Your task to perform on an android device: set default search engine in the chrome app Image 0: 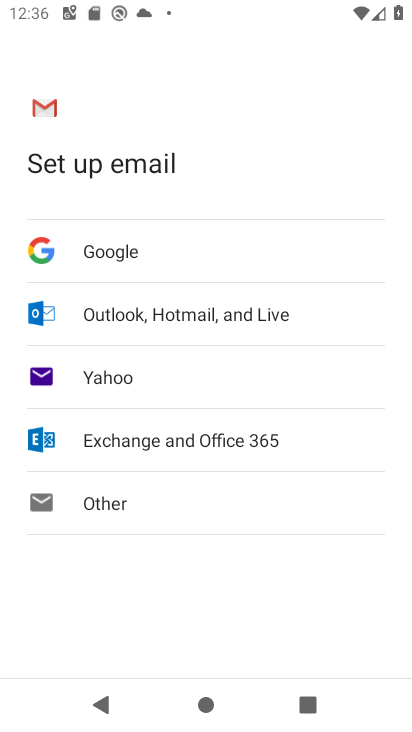
Step 0: press home button
Your task to perform on an android device: set default search engine in the chrome app Image 1: 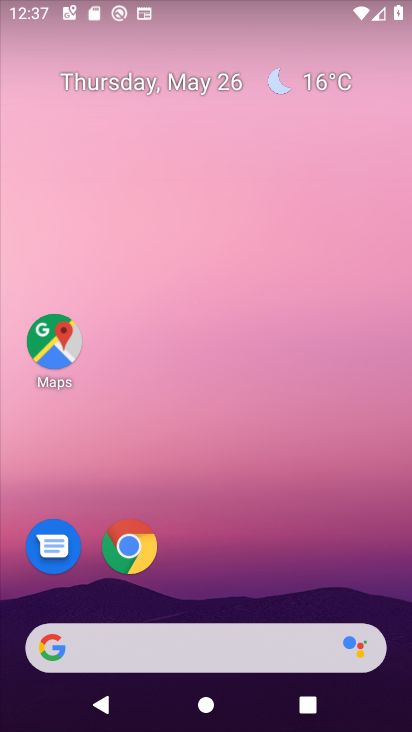
Step 1: click (132, 543)
Your task to perform on an android device: set default search engine in the chrome app Image 2: 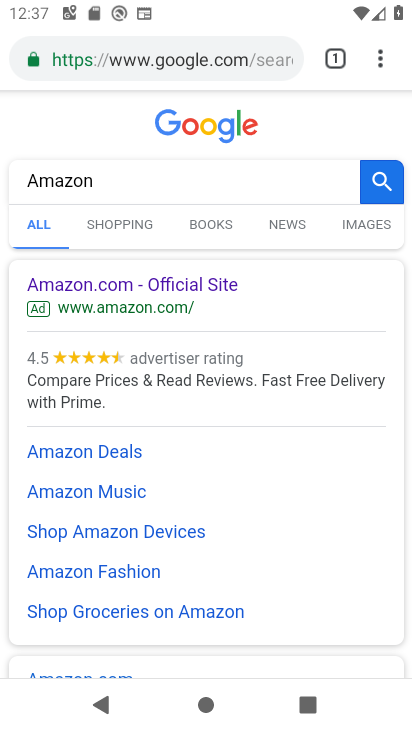
Step 2: click (383, 53)
Your task to perform on an android device: set default search engine in the chrome app Image 3: 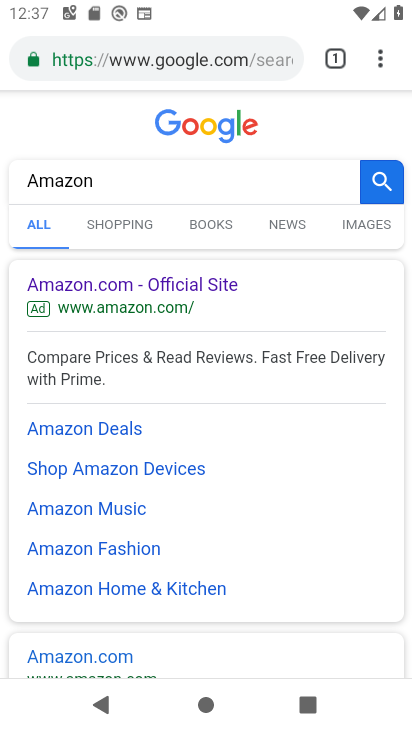
Step 3: click (375, 60)
Your task to perform on an android device: set default search engine in the chrome app Image 4: 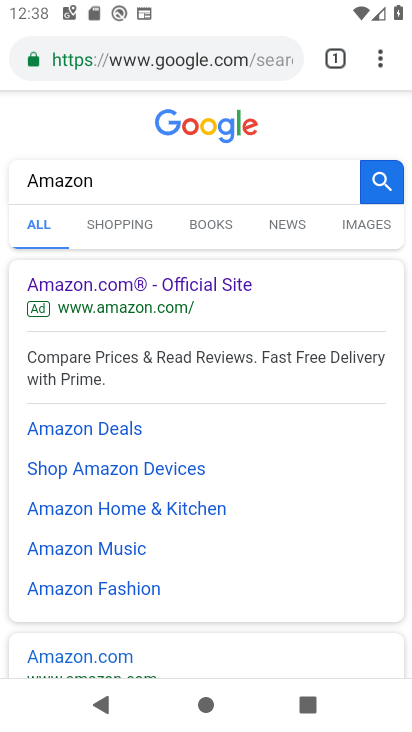
Step 4: click (377, 50)
Your task to perform on an android device: set default search engine in the chrome app Image 5: 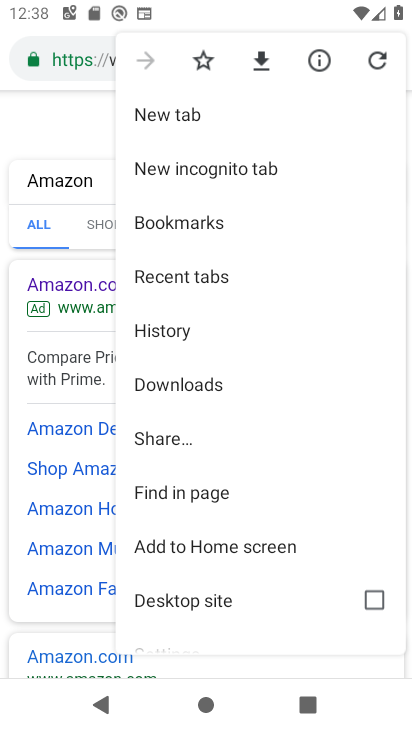
Step 5: drag from (217, 584) to (318, 254)
Your task to perform on an android device: set default search engine in the chrome app Image 6: 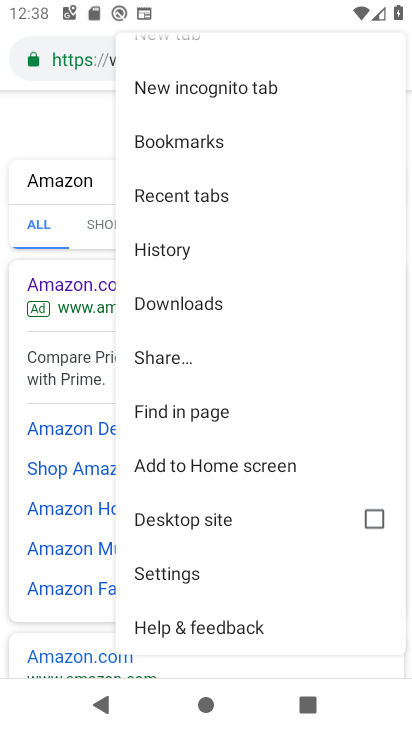
Step 6: click (164, 584)
Your task to perform on an android device: set default search engine in the chrome app Image 7: 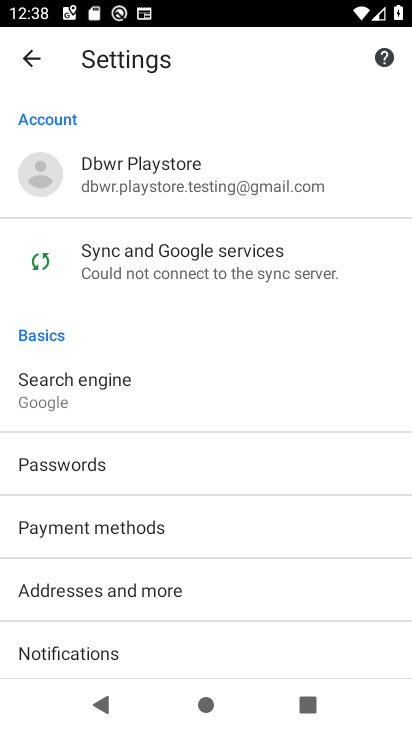
Step 7: click (131, 379)
Your task to perform on an android device: set default search engine in the chrome app Image 8: 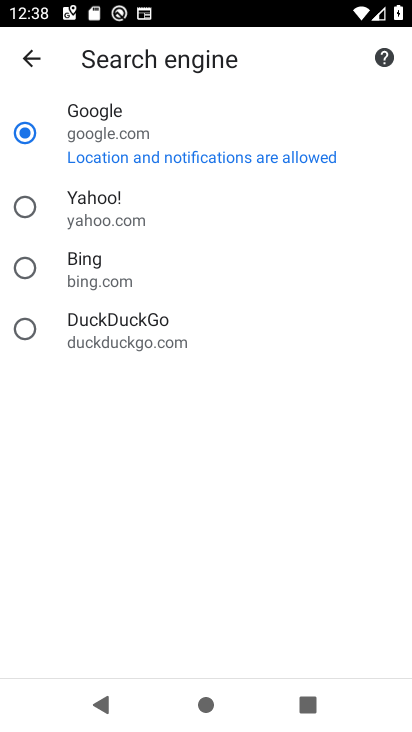
Step 8: task complete